Your task to perform on an android device: Search for sushi restaurants on Maps Image 0: 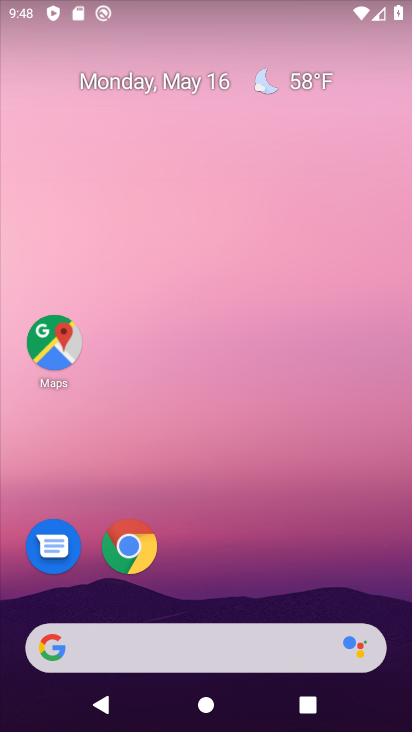
Step 0: click (54, 344)
Your task to perform on an android device: Search for sushi restaurants on Maps Image 1: 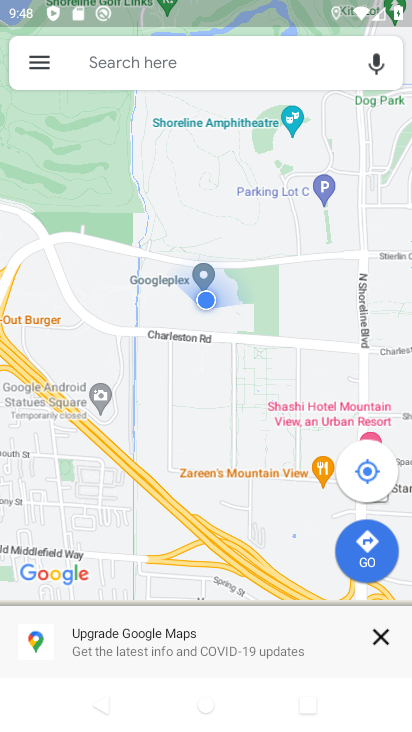
Step 1: click (189, 67)
Your task to perform on an android device: Search for sushi restaurants on Maps Image 2: 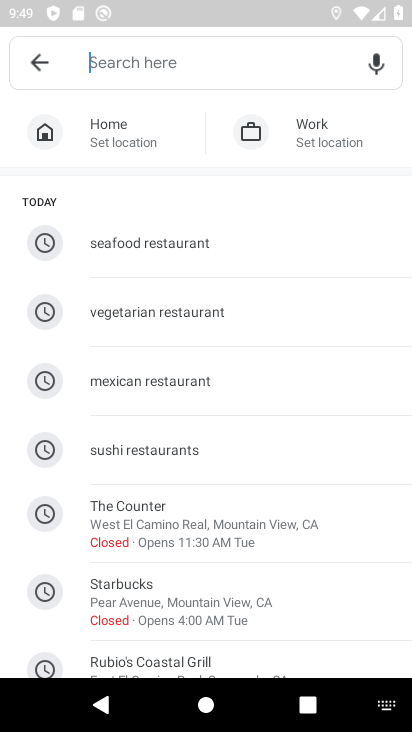
Step 2: type "sushi restaurants"
Your task to perform on an android device: Search for sushi restaurants on Maps Image 3: 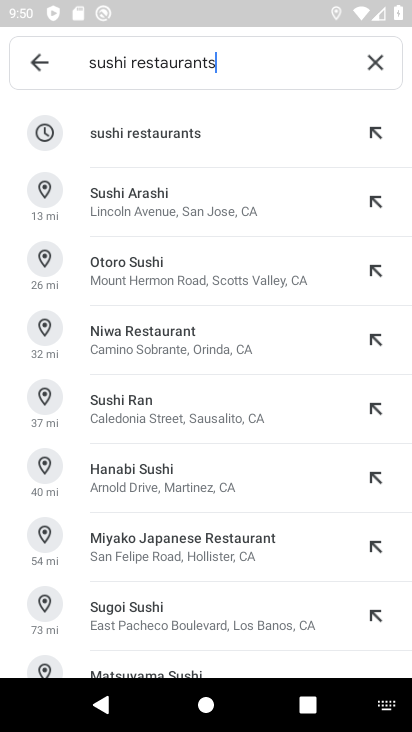
Step 3: click (161, 141)
Your task to perform on an android device: Search for sushi restaurants on Maps Image 4: 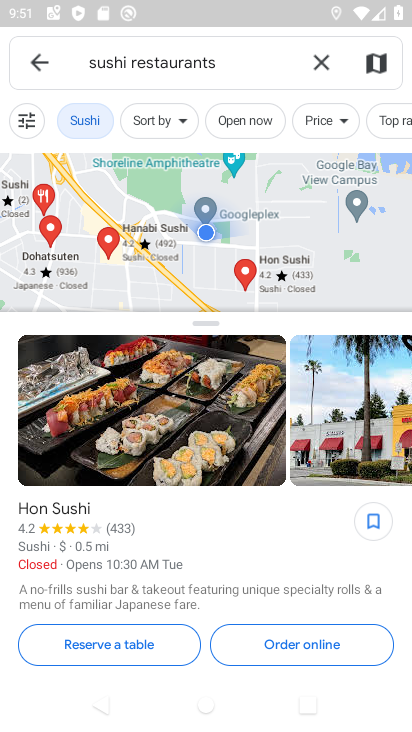
Step 4: task complete